Your task to perform on an android device: Open settings on Google Maps Image 0: 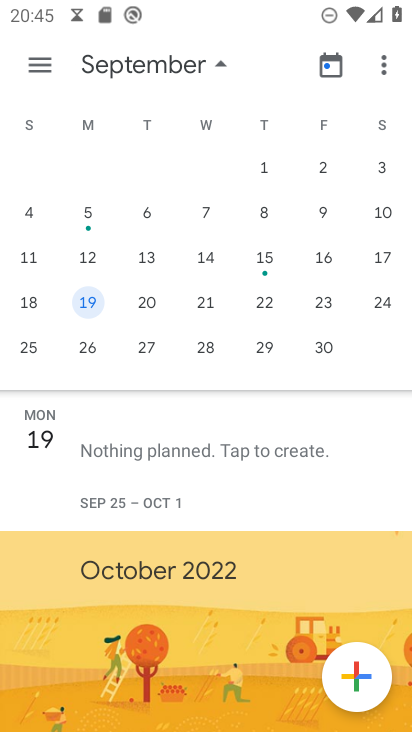
Step 0: press home button
Your task to perform on an android device: Open settings on Google Maps Image 1: 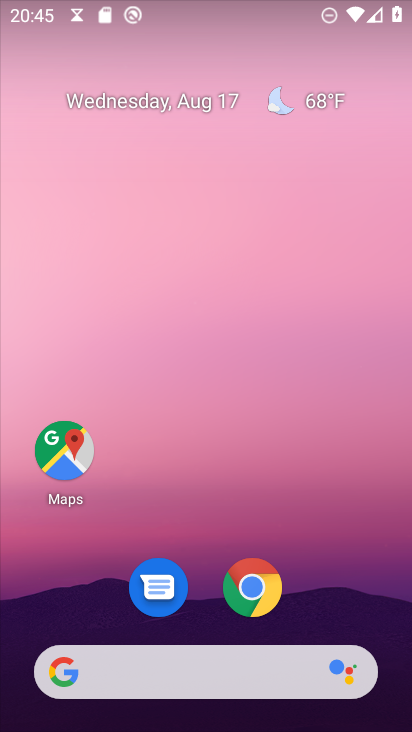
Step 1: click (62, 455)
Your task to perform on an android device: Open settings on Google Maps Image 2: 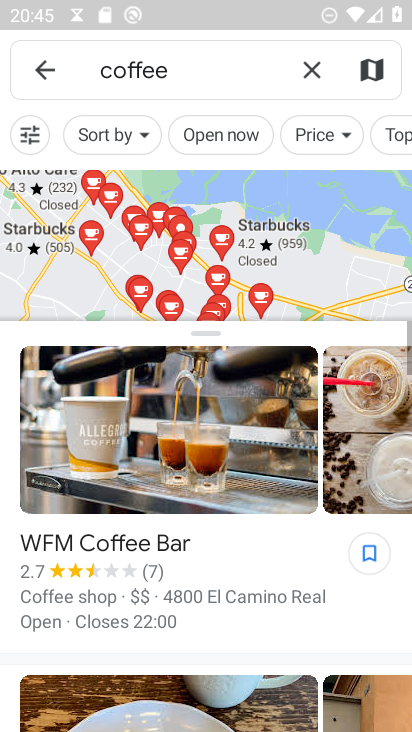
Step 2: click (34, 72)
Your task to perform on an android device: Open settings on Google Maps Image 3: 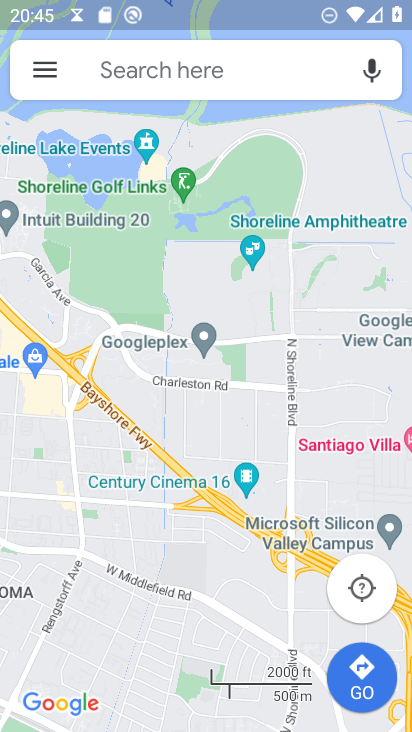
Step 3: click (50, 60)
Your task to perform on an android device: Open settings on Google Maps Image 4: 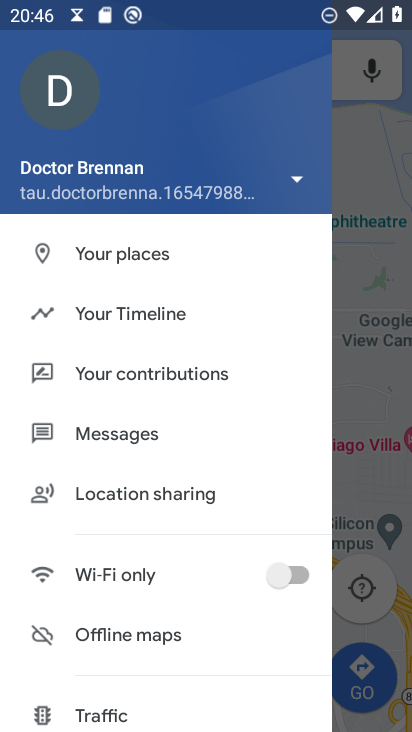
Step 4: drag from (202, 721) to (232, 359)
Your task to perform on an android device: Open settings on Google Maps Image 5: 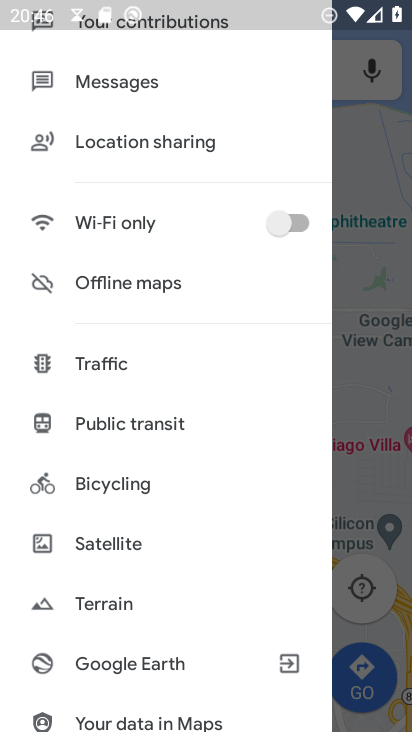
Step 5: drag from (256, 603) to (265, 137)
Your task to perform on an android device: Open settings on Google Maps Image 6: 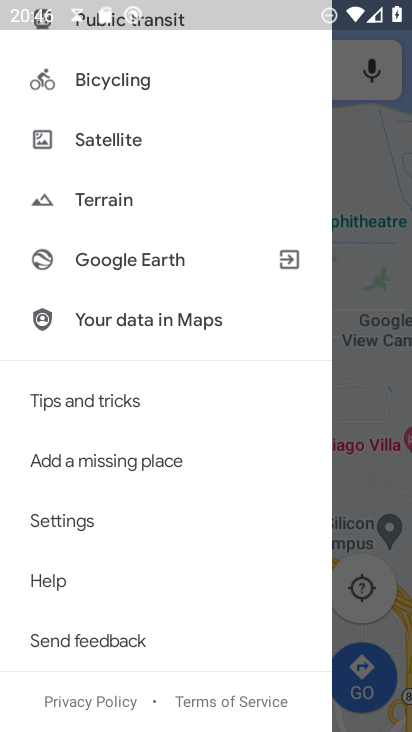
Step 6: click (56, 525)
Your task to perform on an android device: Open settings on Google Maps Image 7: 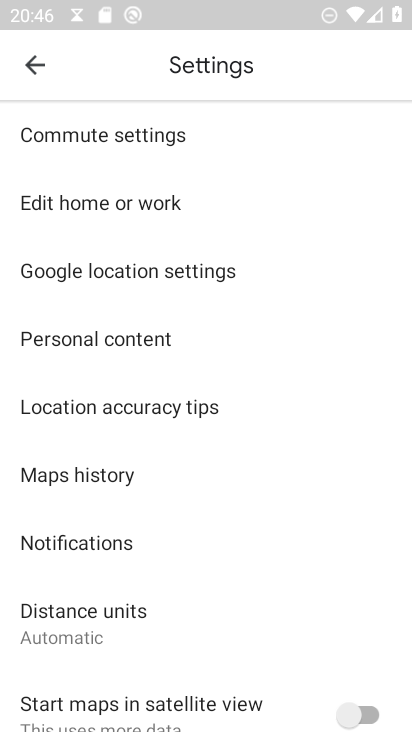
Step 7: task complete